Your task to perform on an android device: turn pop-ups on in chrome Image 0: 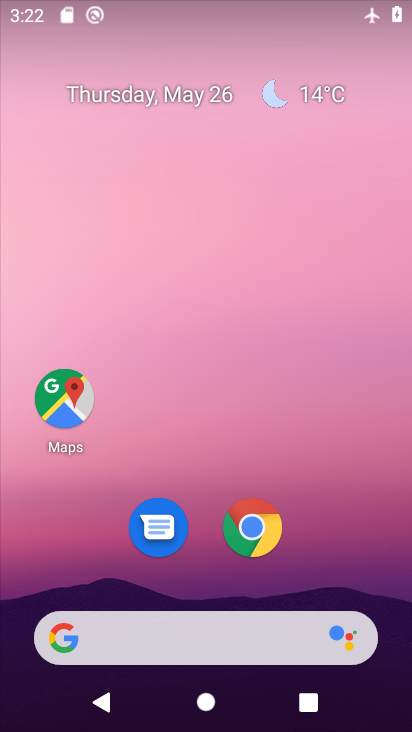
Step 0: click (259, 538)
Your task to perform on an android device: turn pop-ups on in chrome Image 1: 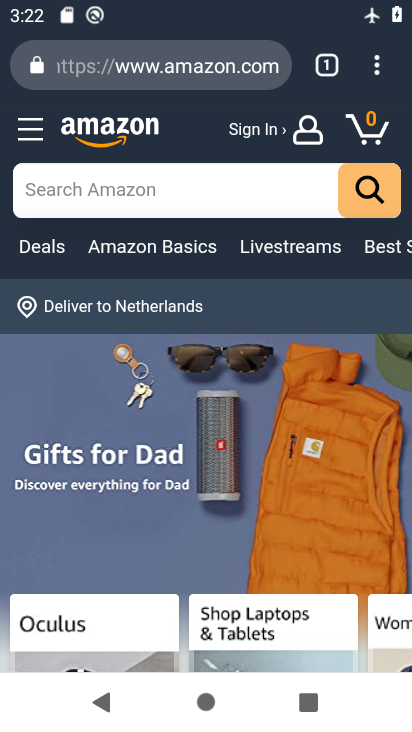
Step 1: click (377, 65)
Your task to perform on an android device: turn pop-ups on in chrome Image 2: 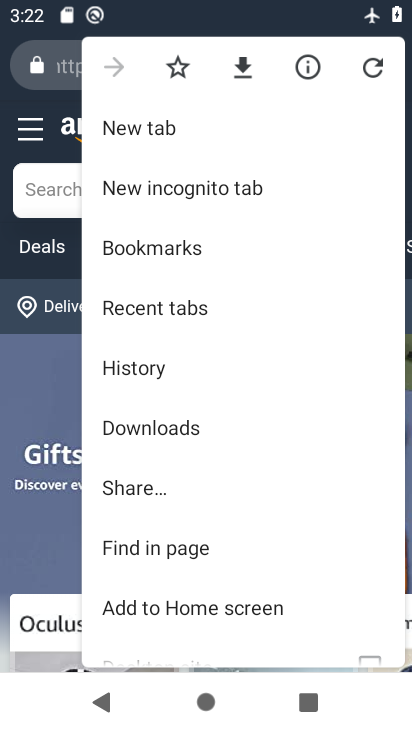
Step 2: drag from (205, 590) to (147, 186)
Your task to perform on an android device: turn pop-ups on in chrome Image 3: 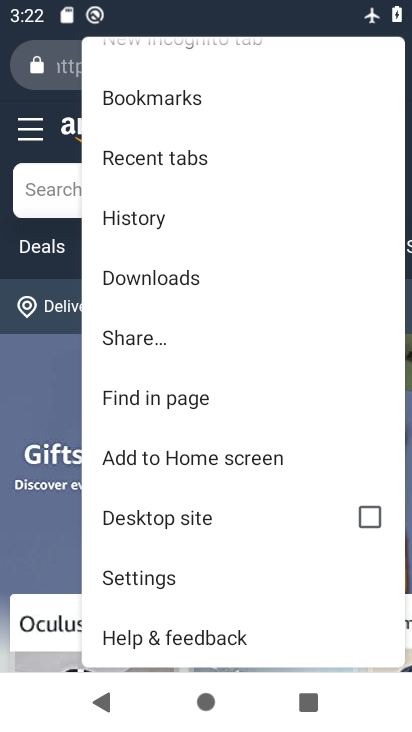
Step 3: click (158, 584)
Your task to perform on an android device: turn pop-ups on in chrome Image 4: 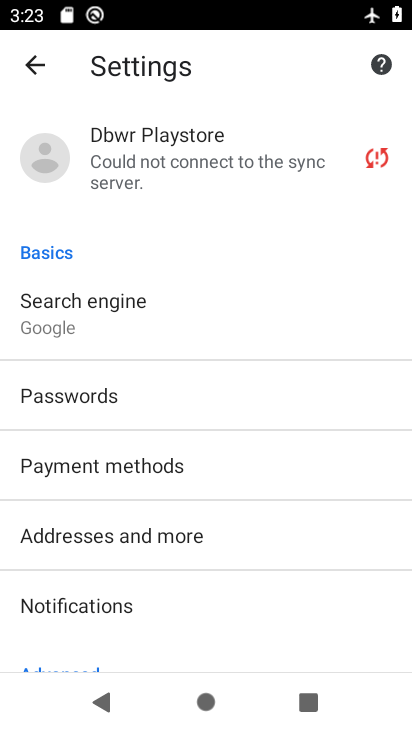
Step 4: drag from (239, 629) to (214, 246)
Your task to perform on an android device: turn pop-ups on in chrome Image 5: 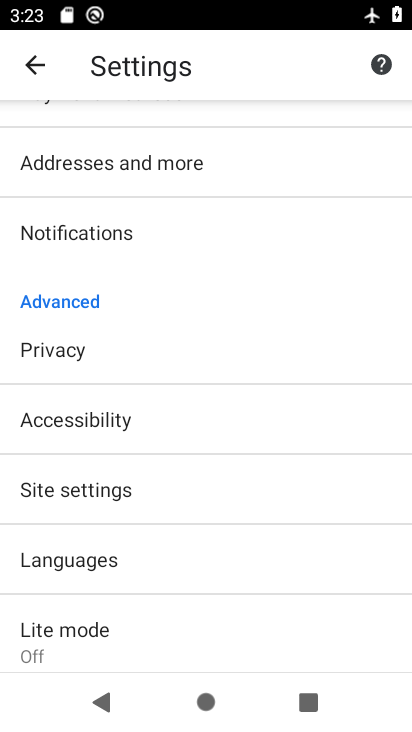
Step 5: click (170, 499)
Your task to perform on an android device: turn pop-ups on in chrome Image 6: 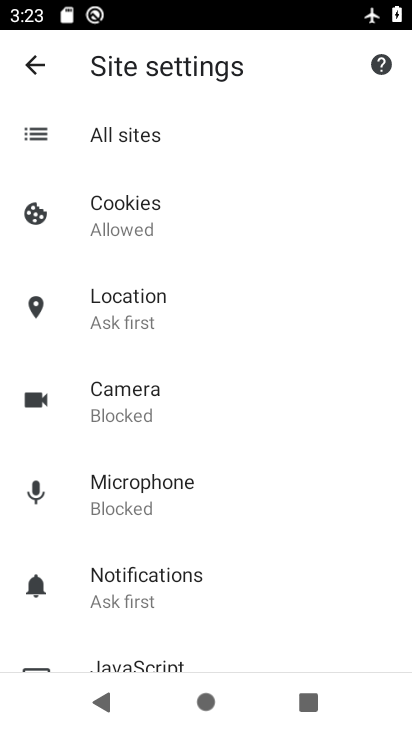
Step 6: drag from (294, 628) to (199, 271)
Your task to perform on an android device: turn pop-ups on in chrome Image 7: 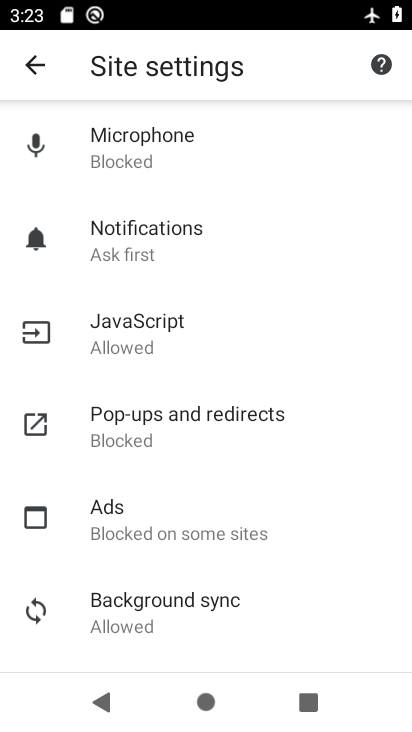
Step 7: click (196, 430)
Your task to perform on an android device: turn pop-ups on in chrome Image 8: 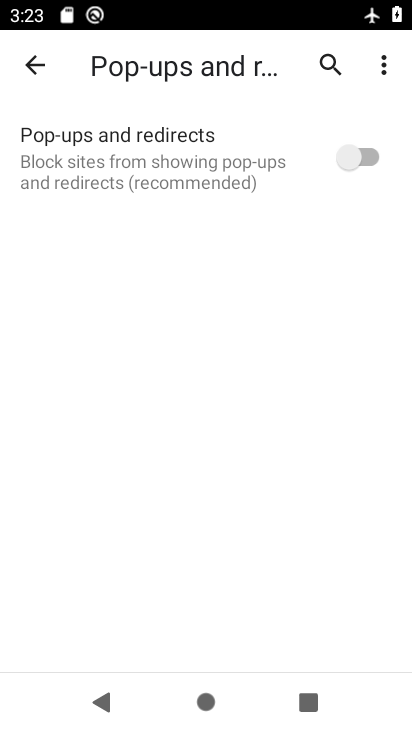
Step 8: click (367, 151)
Your task to perform on an android device: turn pop-ups on in chrome Image 9: 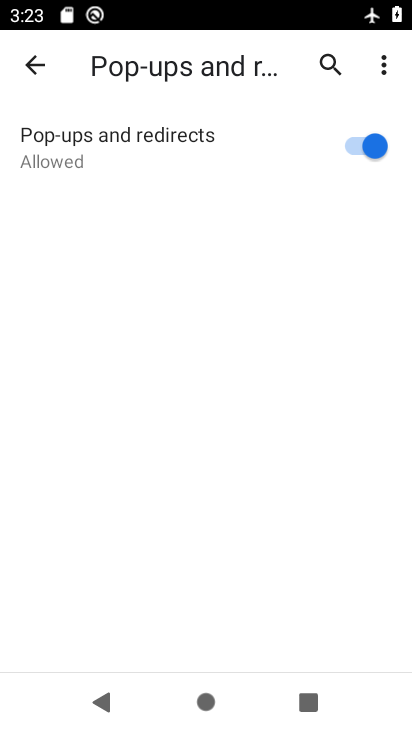
Step 9: task complete